Your task to perform on an android device: turn pop-ups on in chrome Image 0: 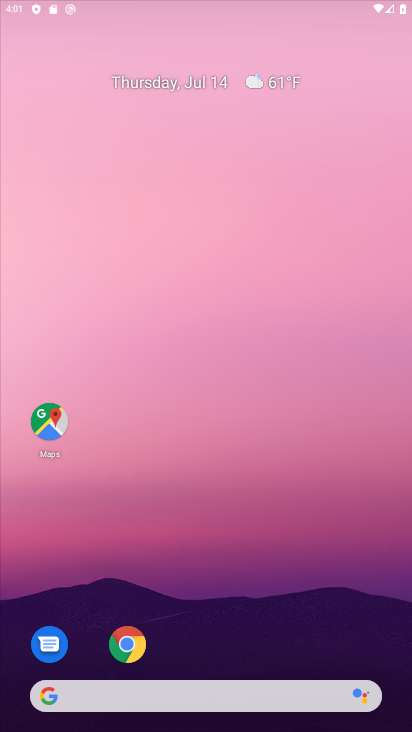
Step 0: press home button
Your task to perform on an android device: turn pop-ups on in chrome Image 1: 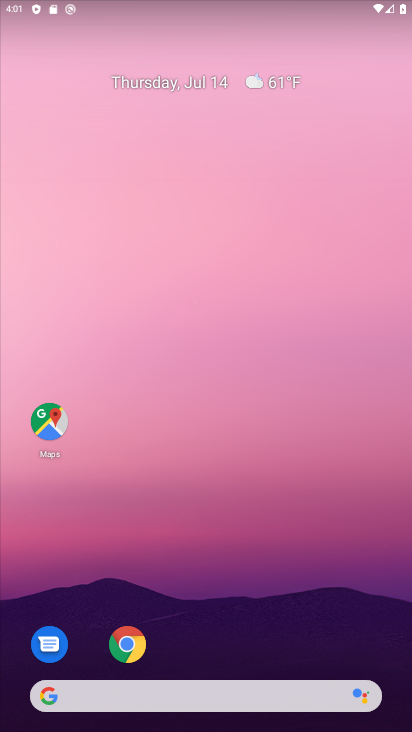
Step 1: press home button
Your task to perform on an android device: turn pop-ups on in chrome Image 2: 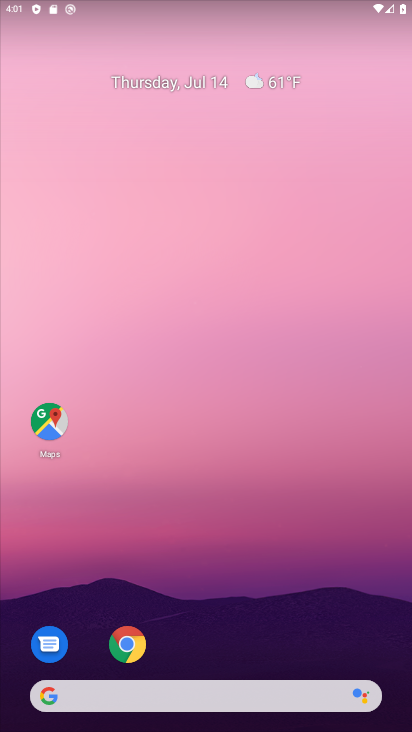
Step 2: click (139, 634)
Your task to perform on an android device: turn pop-ups on in chrome Image 3: 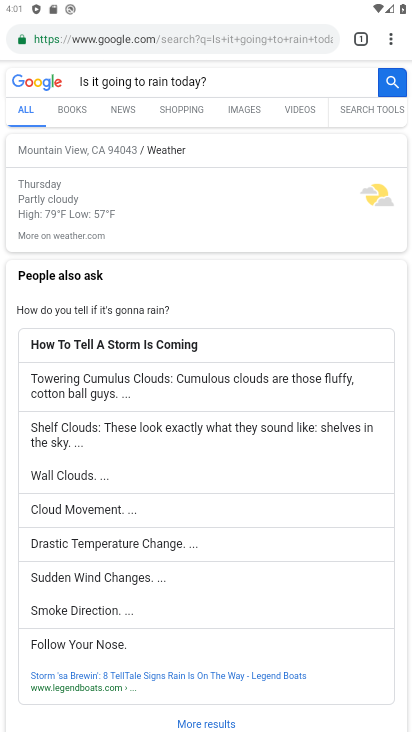
Step 3: click (390, 43)
Your task to perform on an android device: turn pop-ups on in chrome Image 4: 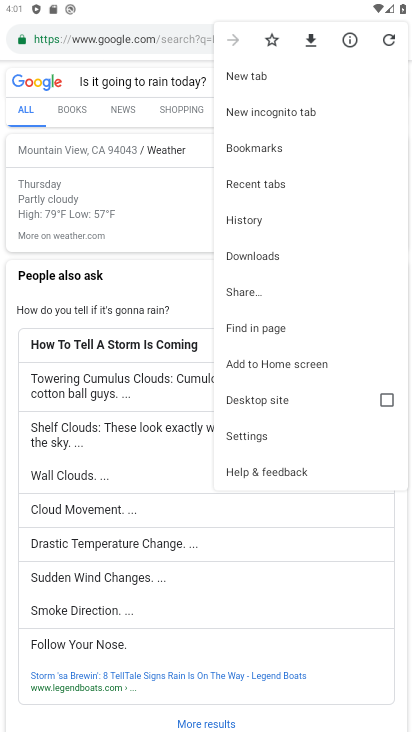
Step 4: click (252, 443)
Your task to perform on an android device: turn pop-ups on in chrome Image 5: 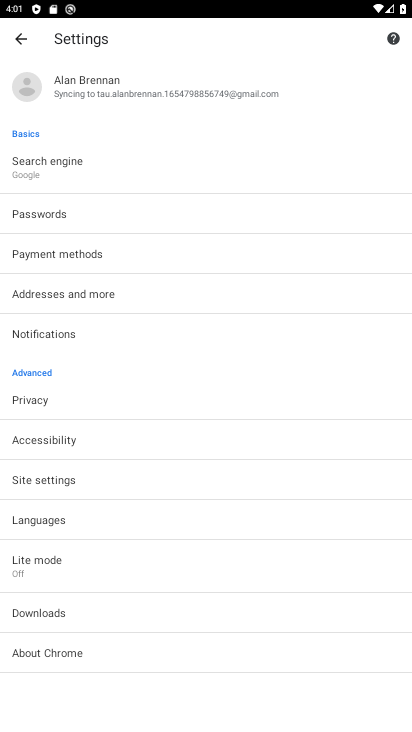
Step 5: click (68, 486)
Your task to perform on an android device: turn pop-ups on in chrome Image 6: 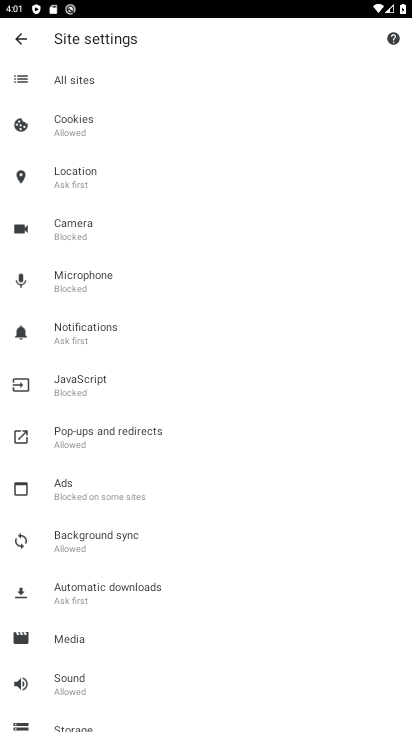
Step 6: click (54, 444)
Your task to perform on an android device: turn pop-ups on in chrome Image 7: 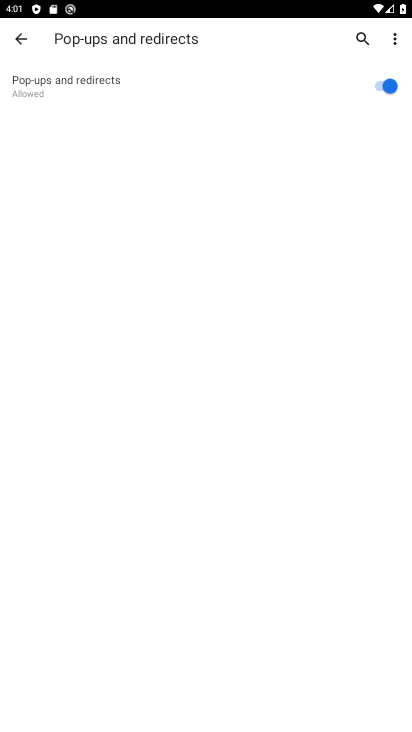
Step 7: task complete